Your task to perform on an android device: Open wifi settings Image 0: 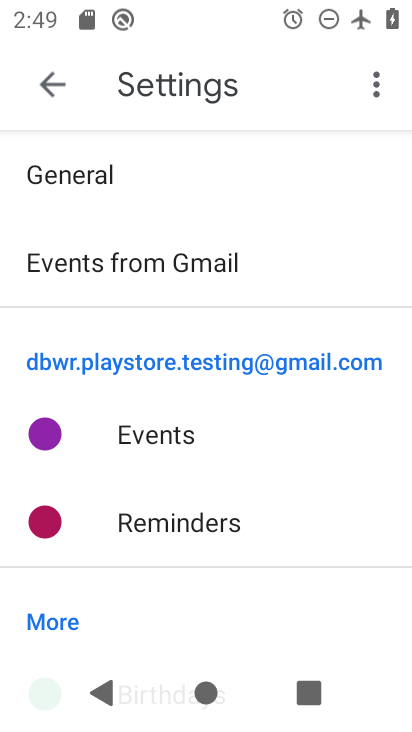
Step 0: press home button
Your task to perform on an android device: Open wifi settings Image 1: 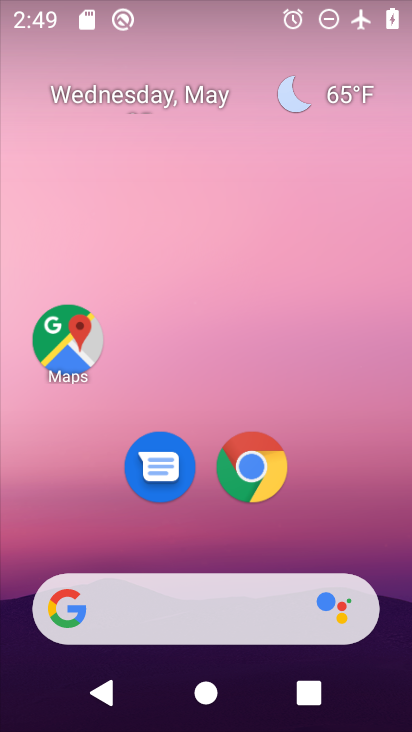
Step 1: drag from (282, 528) to (326, 291)
Your task to perform on an android device: Open wifi settings Image 2: 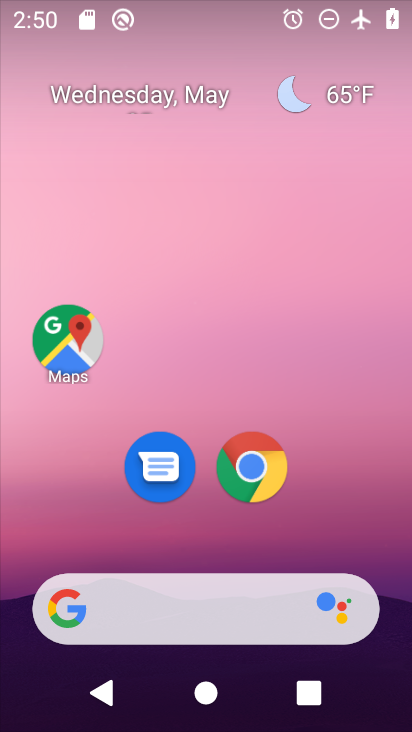
Step 2: drag from (310, 533) to (308, 202)
Your task to perform on an android device: Open wifi settings Image 3: 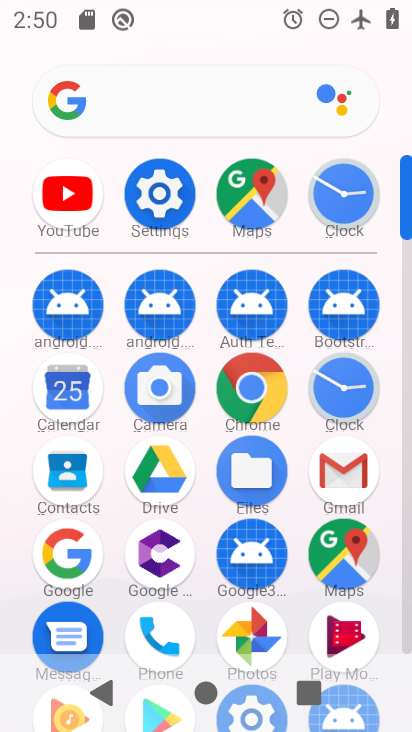
Step 3: click (145, 193)
Your task to perform on an android device: Open wifi settings Image 4: 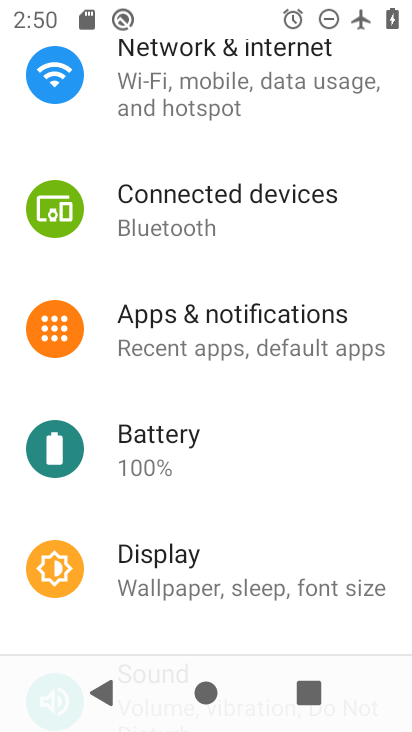
Step 4: drag from (235, 85) to (290, 451)
Your task to perform on an android device: Open wifi settings Image 5: 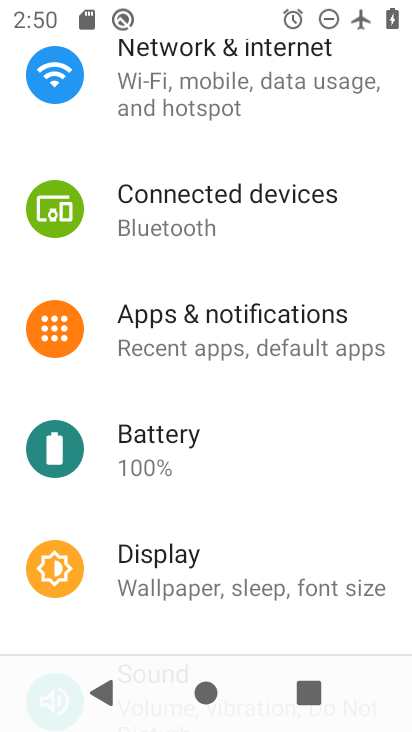
Step 5: drag from (205, 117) to (235, 440)
Your task to perform on an android device: Open wifi settings Image 6: 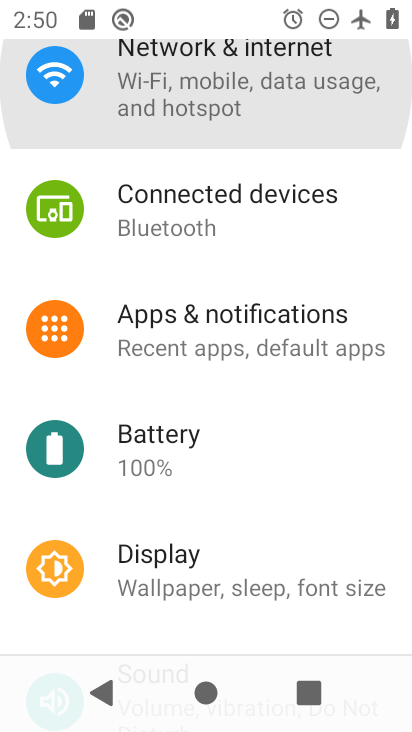
Step 6: drag from (202, 126) to (206, 391)
Your task to perform on an android device: Open wifi settings Image 7: 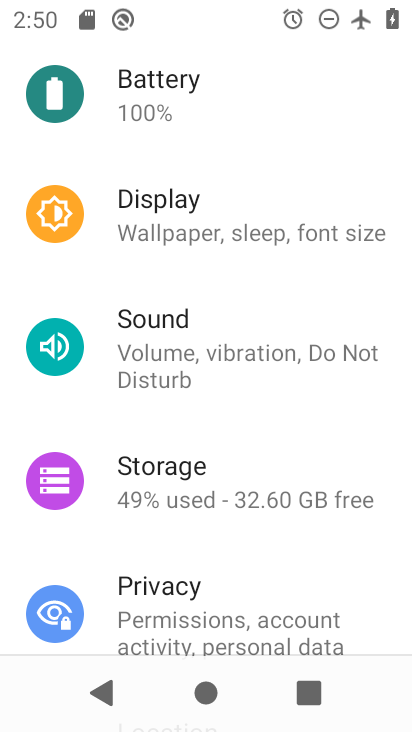
Step 7: drag from (154, 92) to (242, 423)
Your task to perform on an android device: Open wifi settings Image 8: 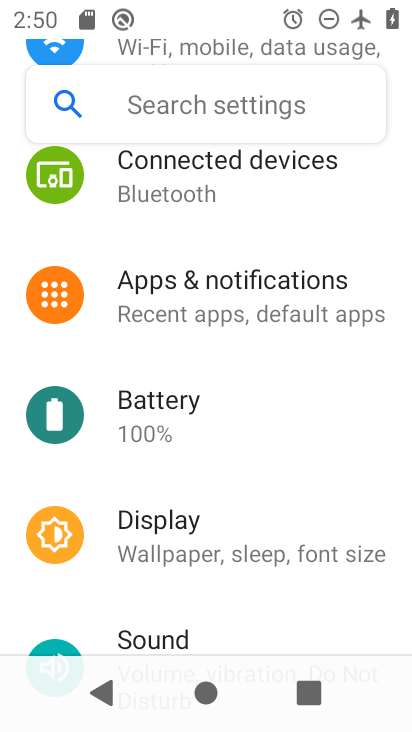
Step 8: drag from (223, 130) to (266, 439)
Your task to perform on an android device: Open wifi settings Image 9: 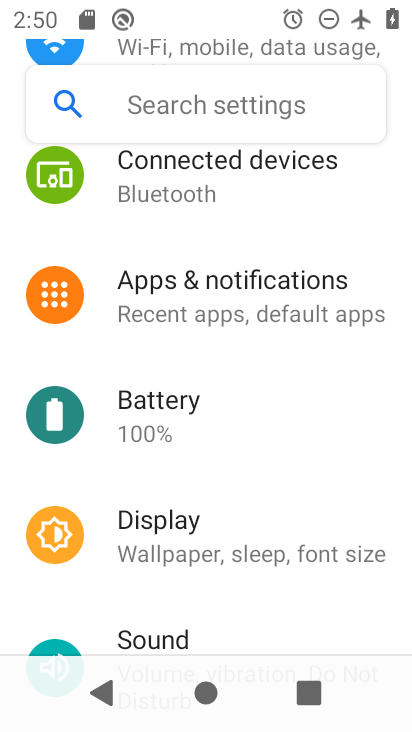
Step 9: drag from (218, 162) to (246, 480)
Your task to perform on an android device: Open wifi settings Image 10: 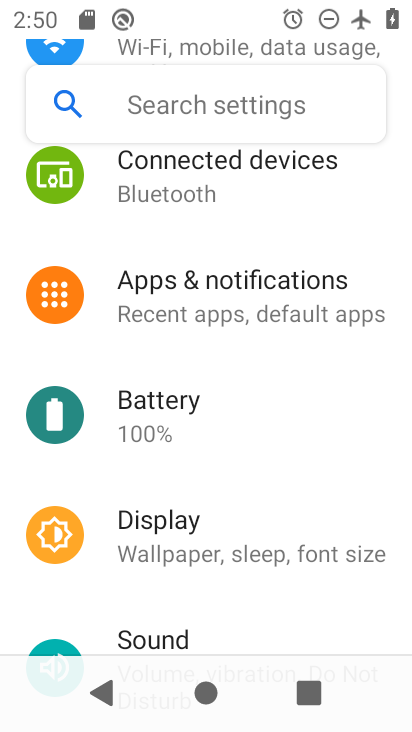
Step 10: drag from (185, 206) to (190, 444)
Your task to perform on an android device: Open wifi settings Image 11: 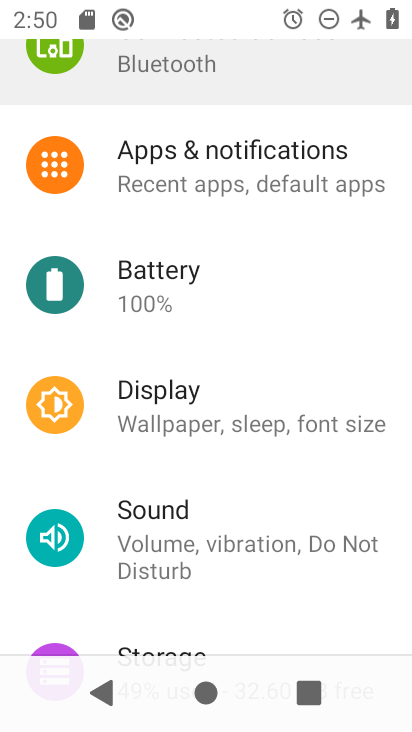
Step 11: drag from (179, 271) to (201, 565)
Your task to perform on an android device: Open wifi settings Image 12: 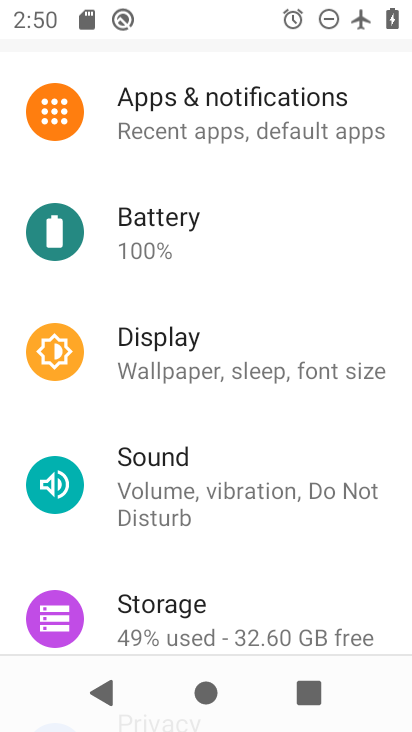
Step 12: drag from (167, 217) to (209, 534)
Your task to perform on an android device: Open wifi settings Image 13: 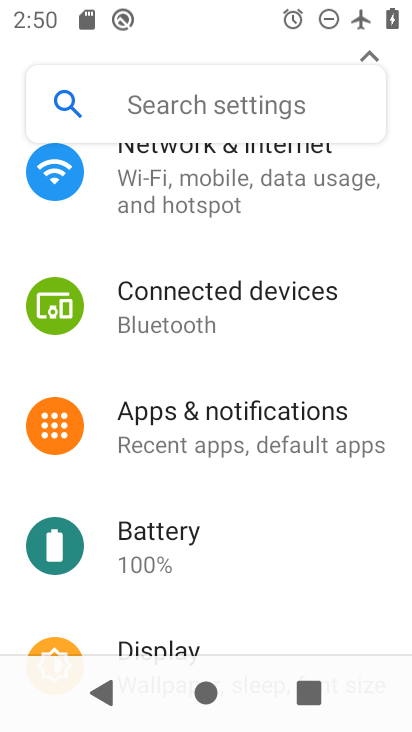
Step 13: drag from (169, 250) to (235, 499)
Your task to perform on an android device: Open wifi settings Image 14: 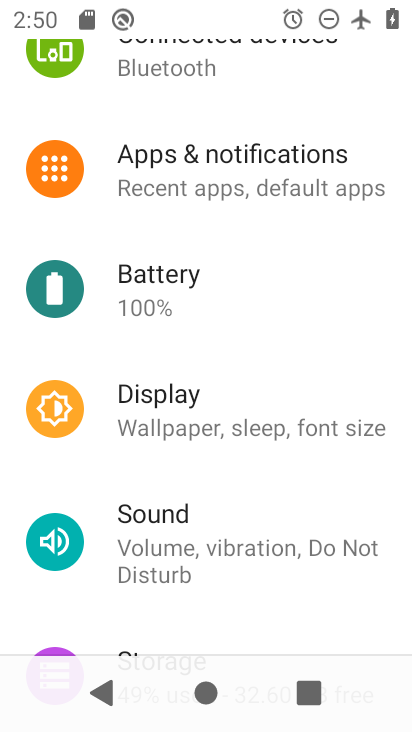
Step 14: drag from (229, 246) to (246, 468)
Your task to perform on an android device: Open wifi settings Image 15: 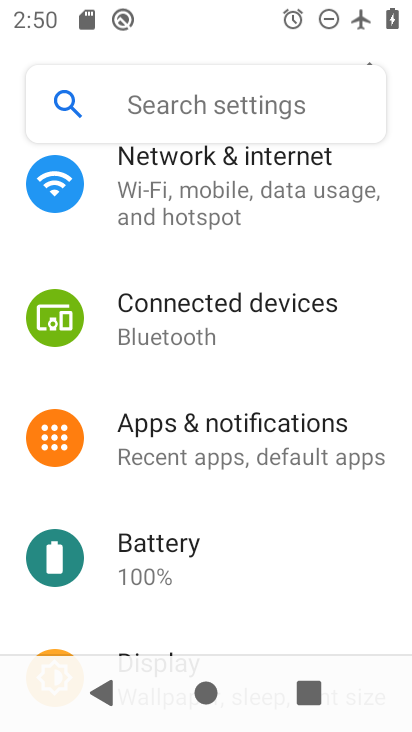
Step 15: drag from (243, 243) to (275, 408)
Your task to perform on an android device: Open wifi settings Image 16: 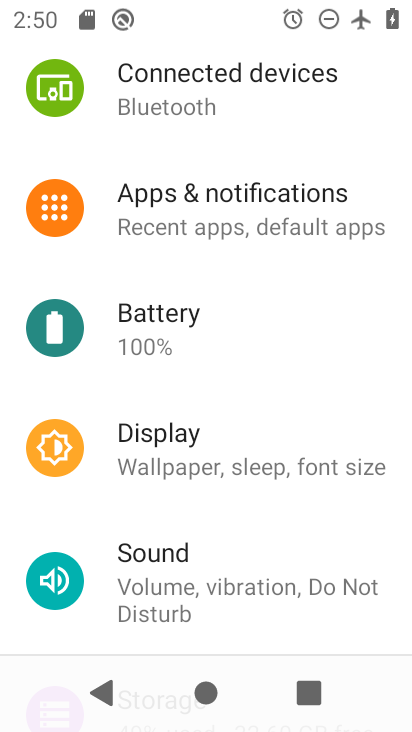
Step 16: drag from (247, 235) to (261, 526)
Your task to perform on an android device: Open wifi settings Image 17: 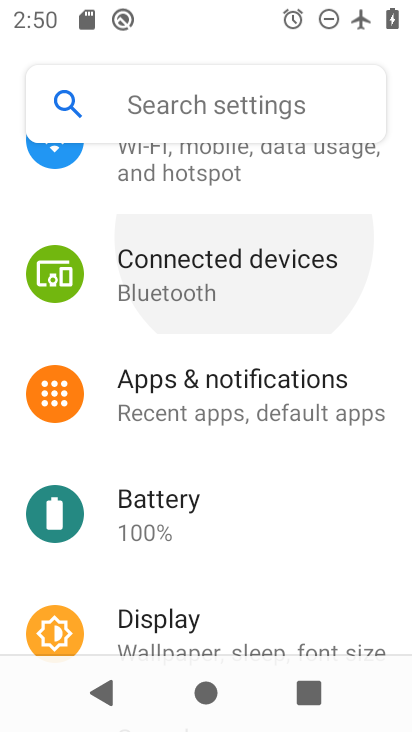
Step 17: drag from (224, 224) to (227, 365)
Your task to perform on an android device: Open wifi settings Image 18: 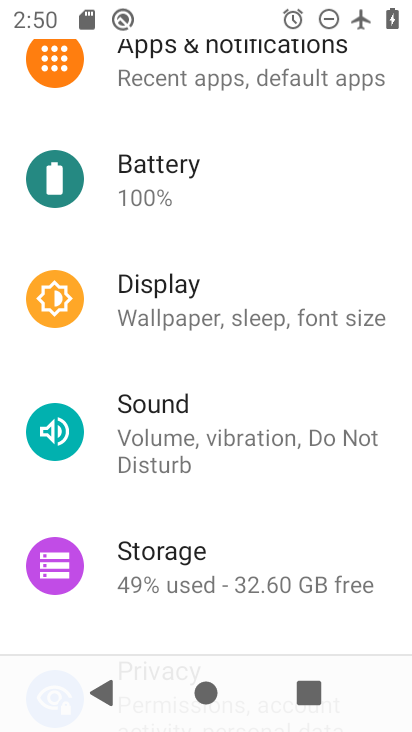
Step 18: drag from (212, 259) to (223, 397)
Your task to perform on an android device: Open wifi settings Image 19: 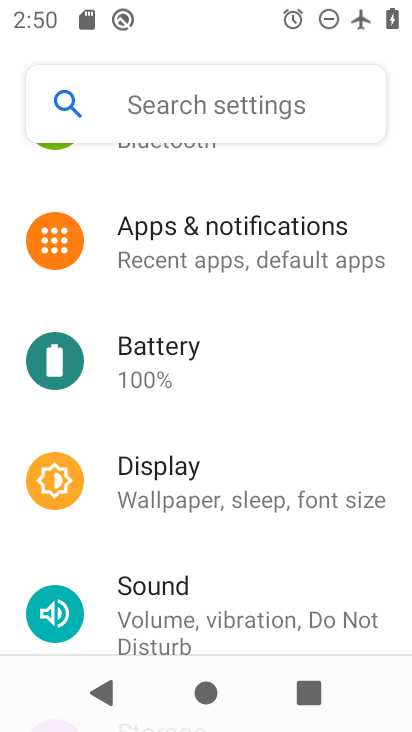
Step 19: drag from (216, 161) to (234, 276)
Your task to perform on an android device: Open wifi settings Image 20: 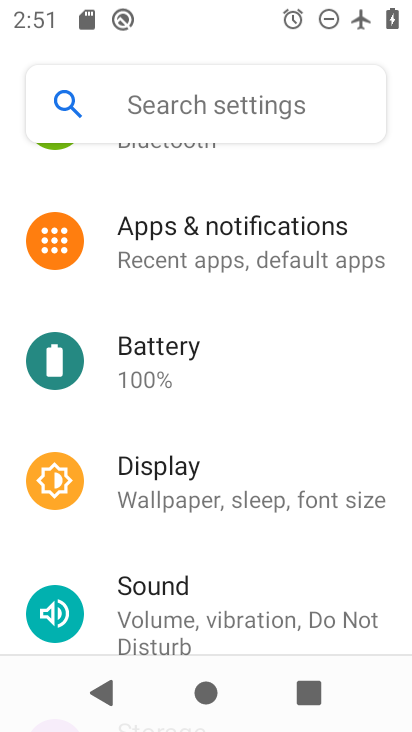
Step 20: click (217, 153)
Your task to perform on an android device: Open wifi settings Image 21: 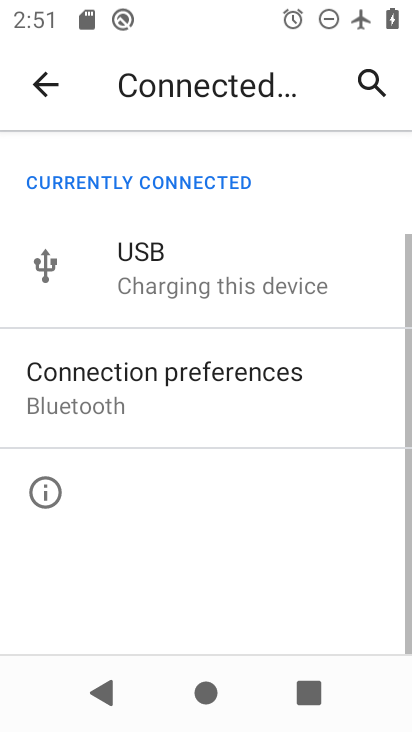
Step 21: click (43, 75)
Your task to perform on an android device: Open wifi settings Image 22: 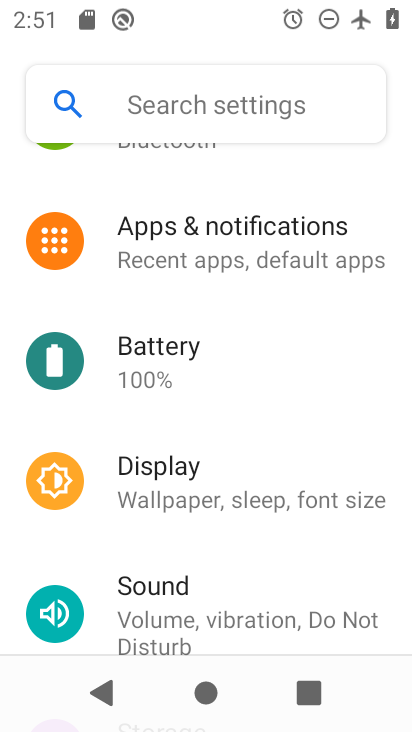
Step 22: drag from (202, 158) to (251, 590)
Your task to perform on an android device: Open wifi settings Image 23: 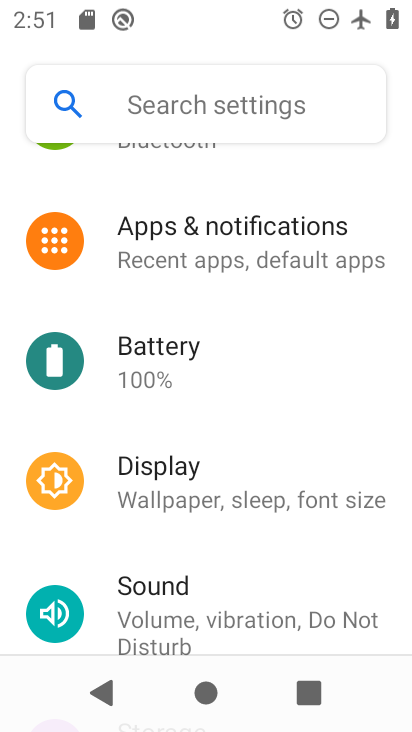
Step 23: click (180, 150)
Your task to perform on an android device: Open wifi settings Image 24: 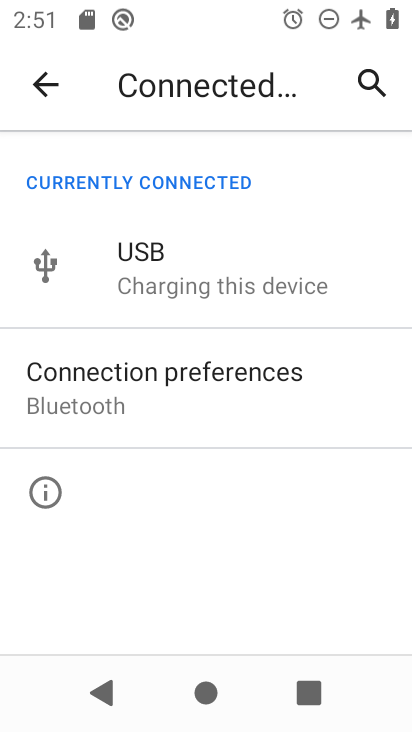
Step 24: click (66, 88)
Your task to perform on an android device: Open wifi settings Image 25: 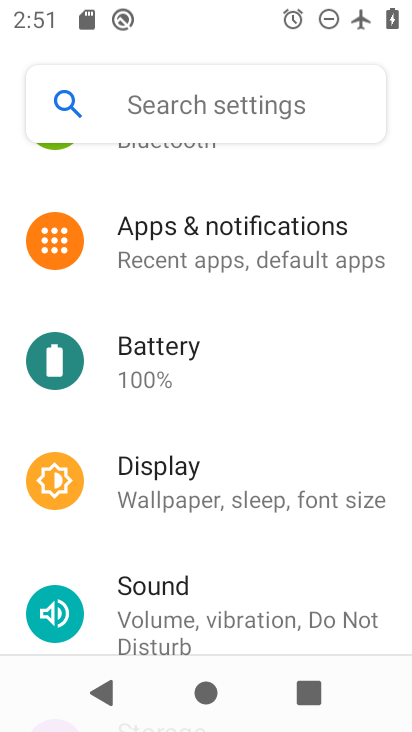
Step 25: task complete